Your task to perform on an android device: show emergency info Image 0: 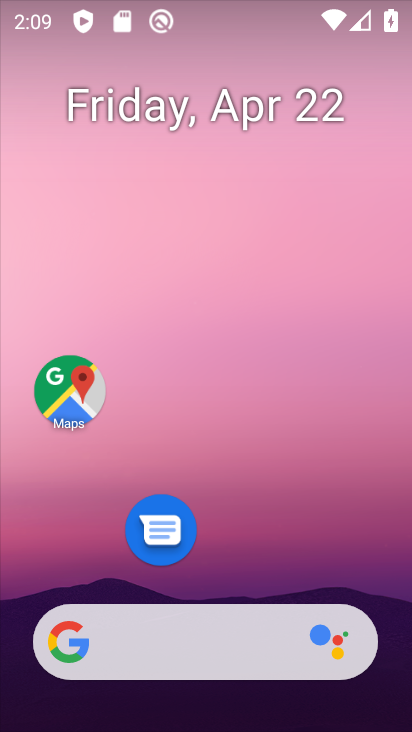
Step 0: drag from (271, 559) to (244, 57)
Your task to perform on an android device: show emergency info Image 1: 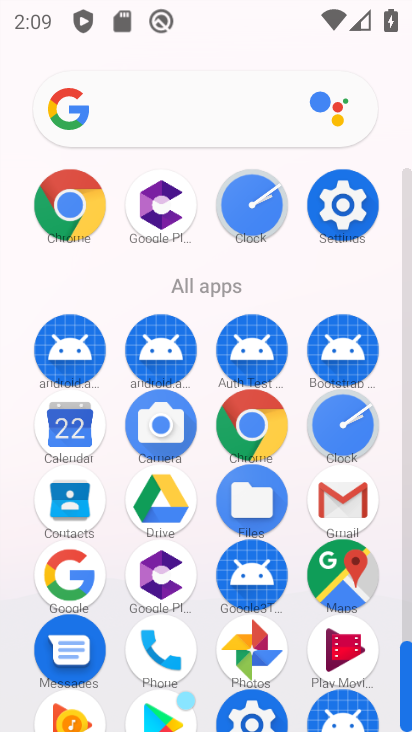
Step 1: click (327, 201)
Your task to perform on an android device: show emergency info Image 2: 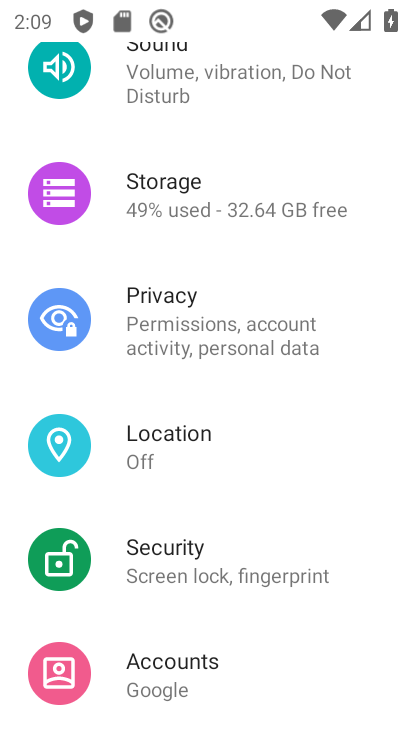
Step 2: drag from (211, 646) to (168, 192)
Your task to perform on an android device: show emergency info Image 3: 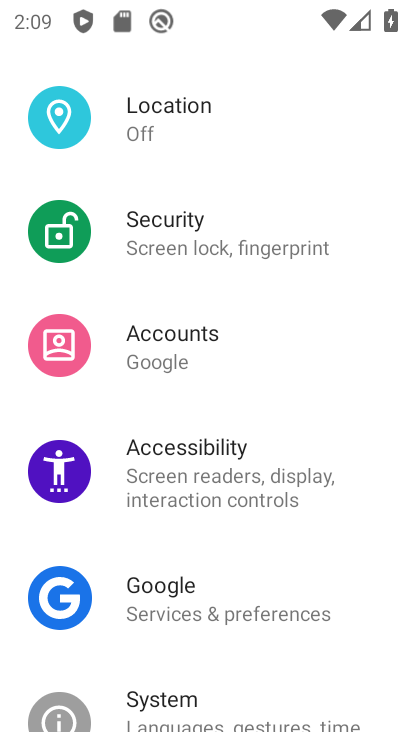
Step 3: drag from (223, 586) to (217, 163)
Your task to perform on an android device: show emergency info Image 4: 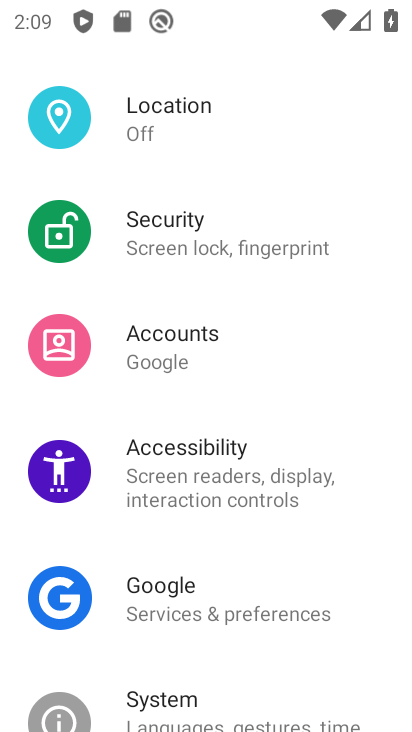
Step 4: drag from (233, 645) to (223, 252)
Your task to perform on an android device: show emergency info Image 5: 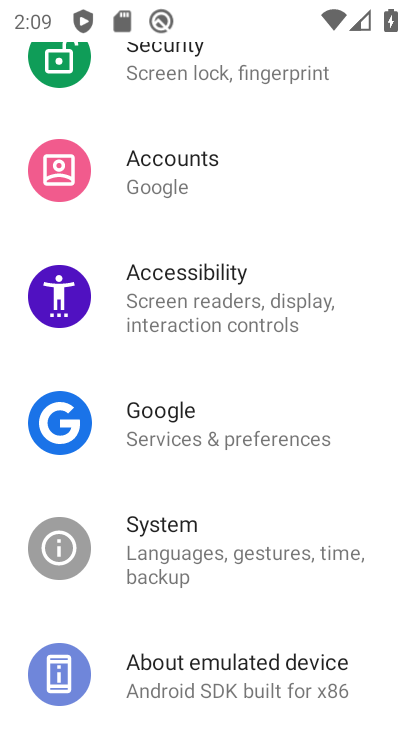
Step 5: click (209, 658)
Your task to perform on an android device: show emergency info Image 6: 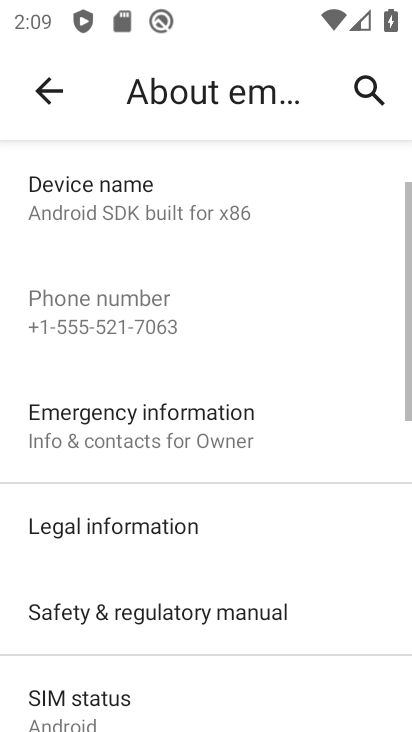
Step 6: click (154, 430)
Your task to perform on an android device: show emergency info Image 7: 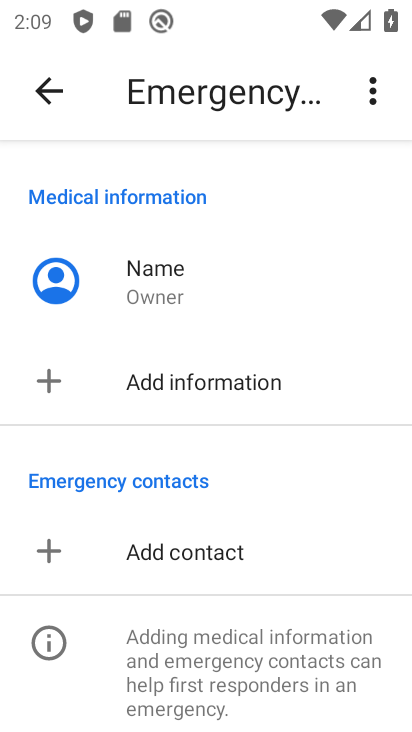
Step 7: task complete